Your task to perform on an android device: Open calendar and show me the fourth week of next month Image 0: 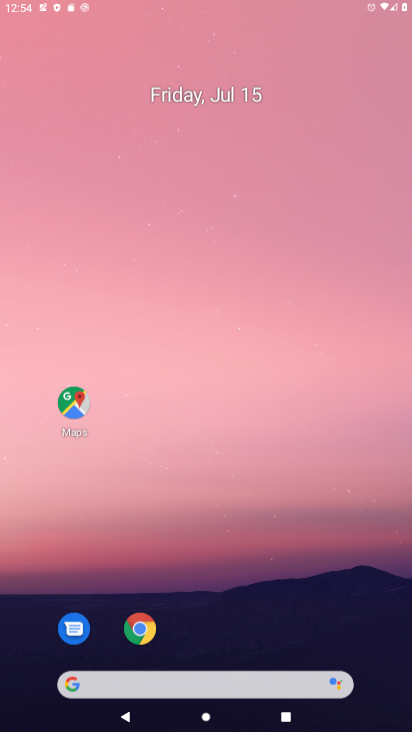
Step 0: press home button
Your task to perform on an android device: Open calendar and show me the fourth week of next month Image 1: 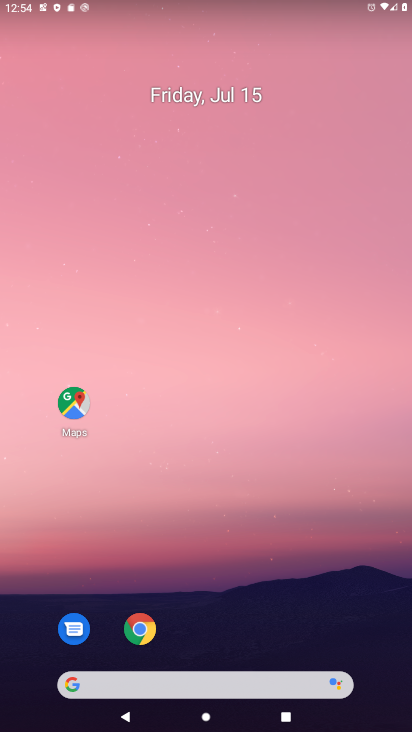
Step 1: drag from (299, 651) to (313, 41)
Your task to perform on an android device: Open calendar and show me the fourth week of next month Image 2: 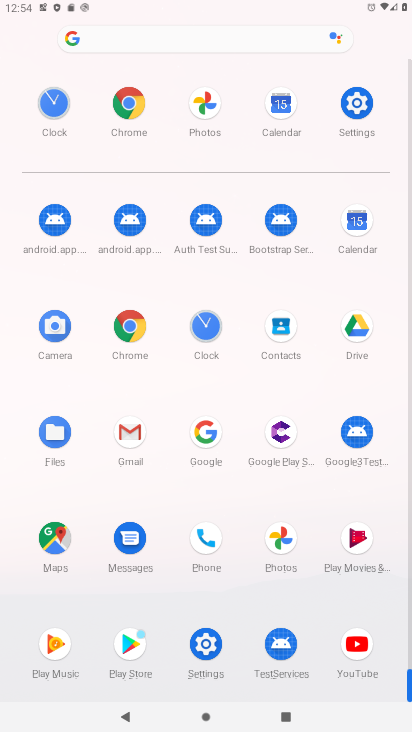
Step 2: click (355, 228)
Your task to perform on an android device: Open calendar and show me the fourth week of next month Image 3: 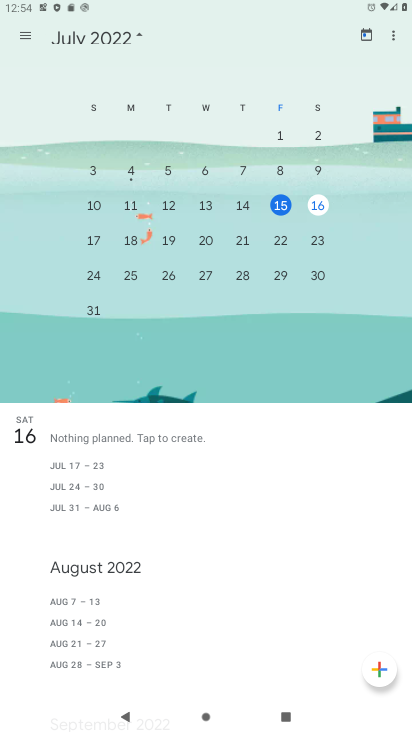
Step 3: drag from (391, 215) to (45, 216)
Your task to perform on an android device: Open calendar and show me the fourth week of next month Image 4: 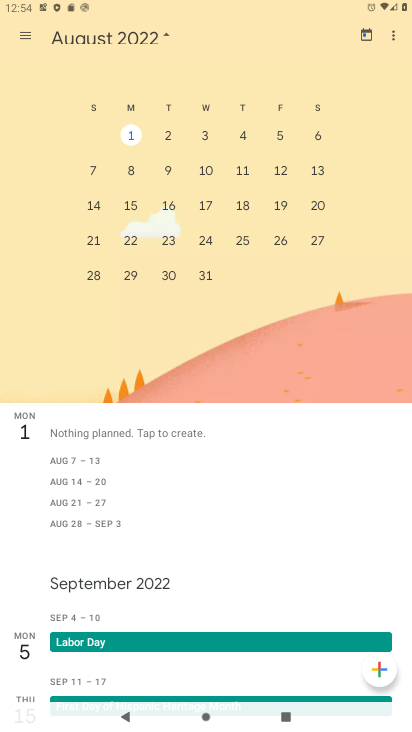
Step 4: click (170, 33)
Your task to perform on an android device: Open calendar and show me the fourth week of next month Image 5: 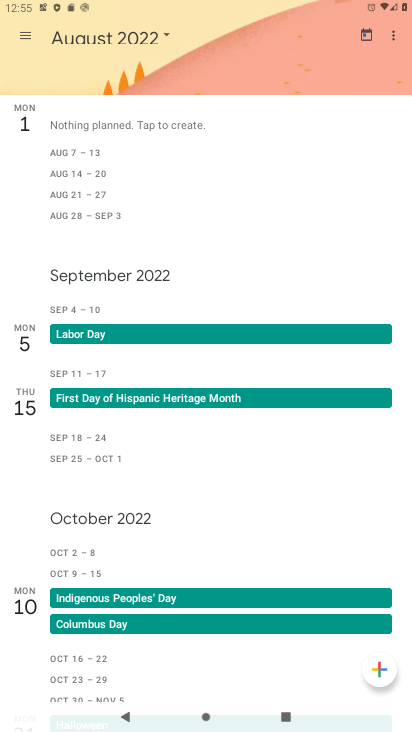
Step 5: click (162, 38)
Your task to perform on an android device: Open calendar and show me the fourth week of next month Image 6: 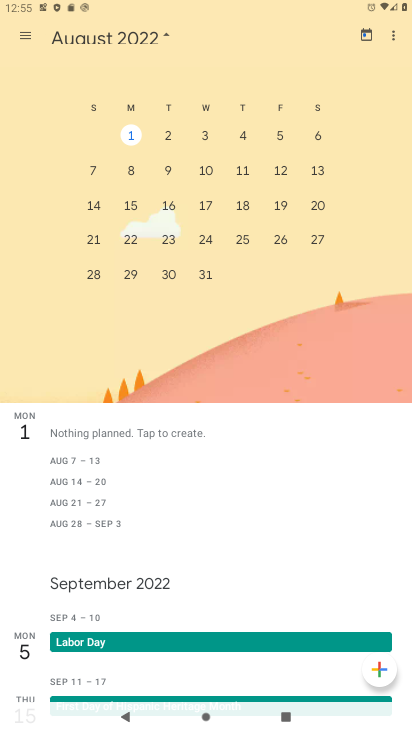
Step 6: click (246, 237)
Your task to perform on an android device: Open calendar and show me the fourth week of next month Image 7: 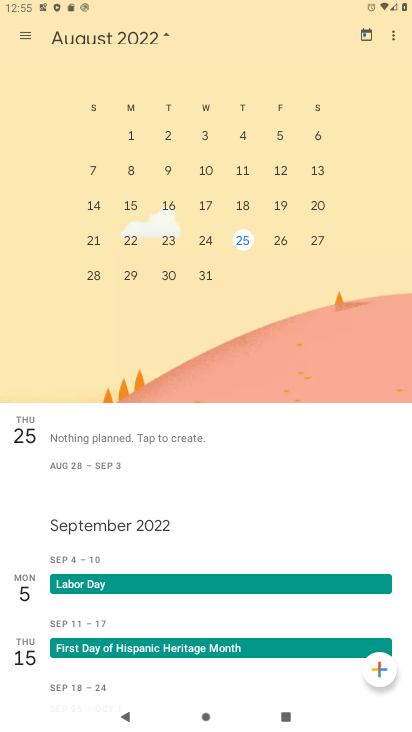
Step 7: click (280, 238)
Your task to perform on an android device: Open calendar and show me the fourth week of next month Image 8: 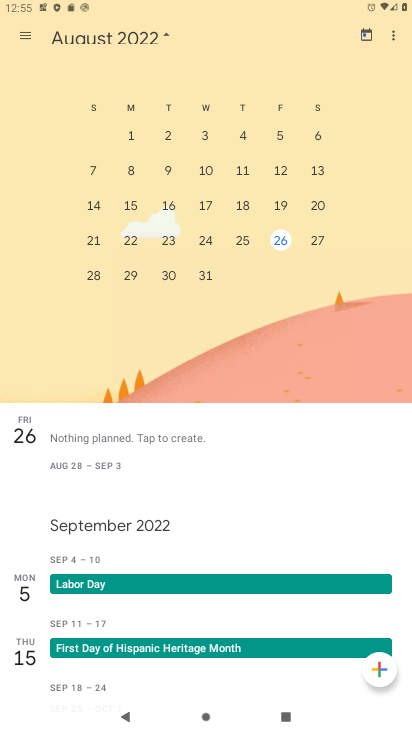
Step 8: click (322, 241)
Your task to perform on an android device: Open calendar and show me the fourth week of next month Image 9: 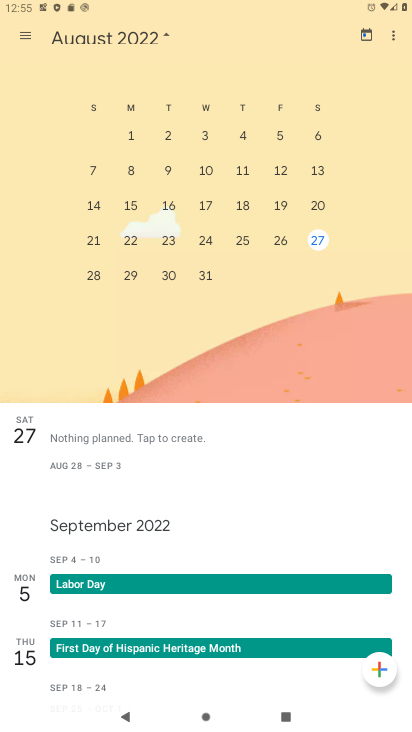
Step 9: click (98, 271)
Your task to perform on an android device: Open calendar and show me the fourth week of next month Image 10: 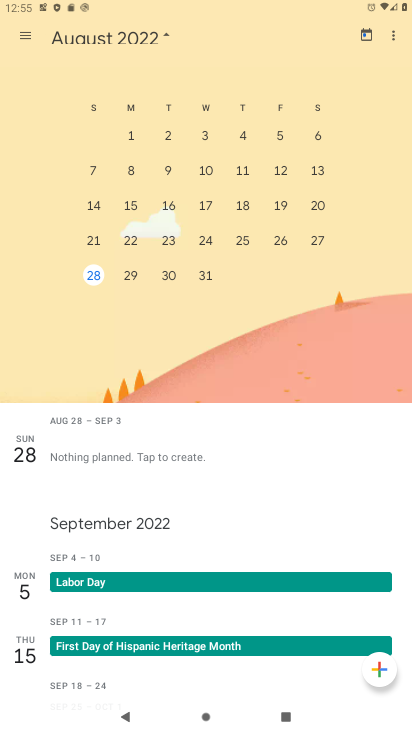
Step 10: click (137, 277)
Your task to perform on an android device: Open calendar and show me the fourth week of next month Image 11: 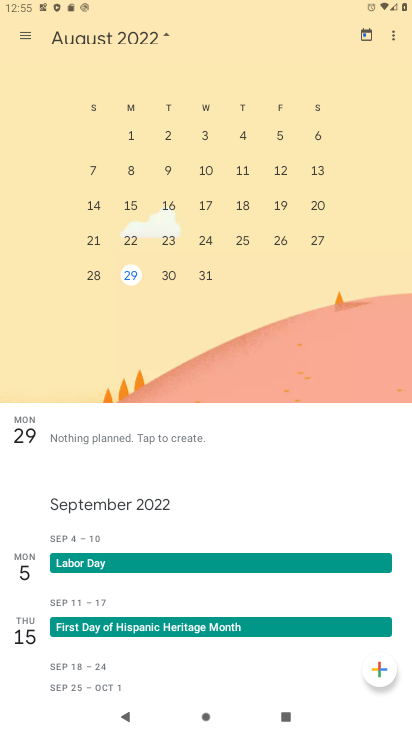
Step 11: click (178, 274)
Your task to perform on an android device: Open calendar and show me the fourth week of next month Image 12: 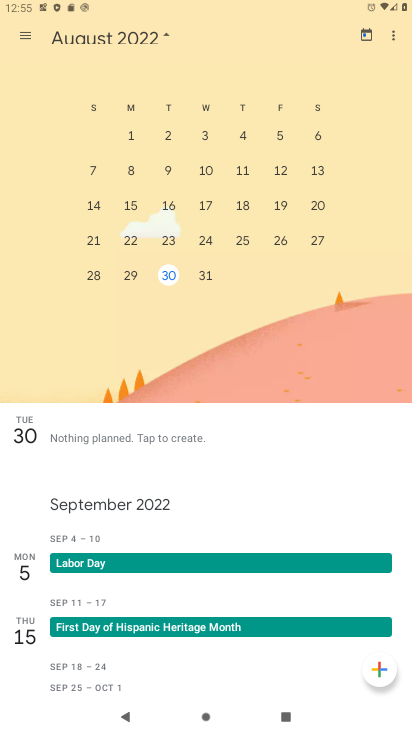
Step 12: click (210, 271)
Your task to perform on an android device: Open calendar and show me the fourth week of next month Image 13: 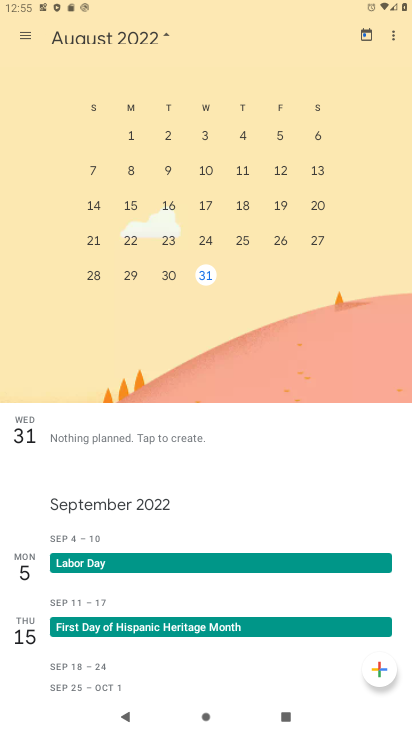
Step 13: task complete